Your task to perform on an android device: check google app version Image 0: 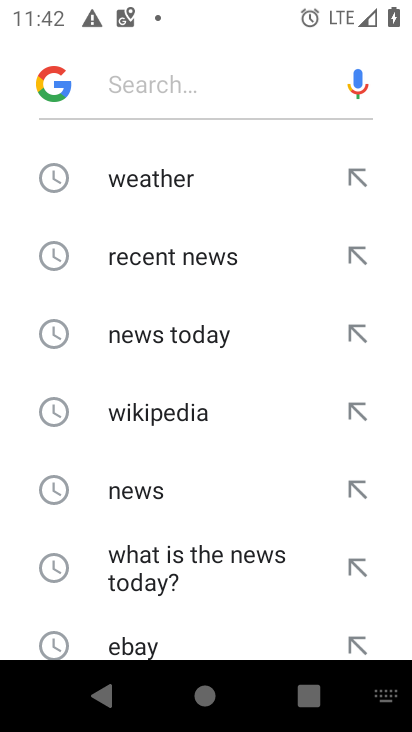
Step 0: press back button
Your task to perform on an android device: check google app version Image 1: 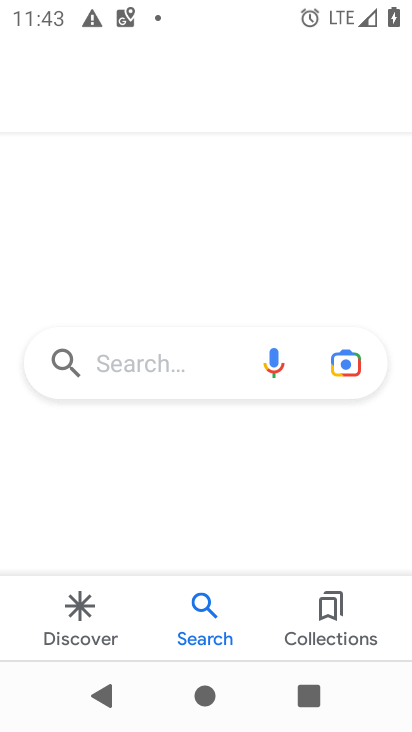
Step 1: press back button
Your task to perform on an android device: check google app version Image 2: 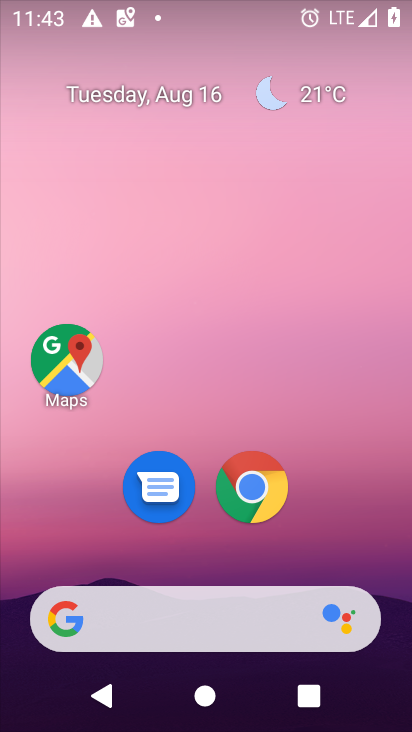
Step 2: drag from (204, 565) to (236, 0)
Your task to perform on an android device: check google app version Image 3: 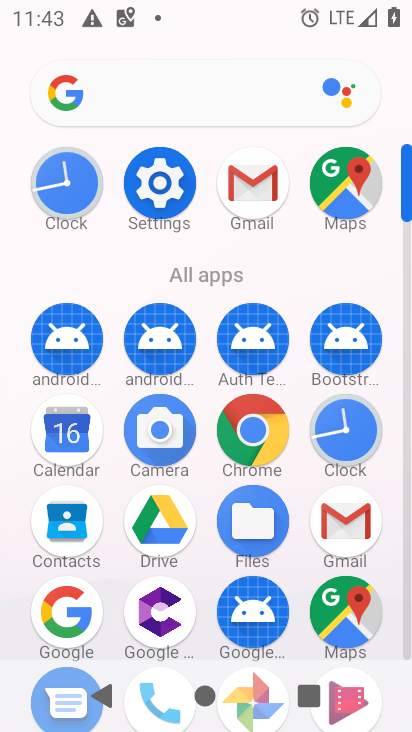
Step 3: click (76, 615)
Your task to perform on an android device: check google app version Image 4: 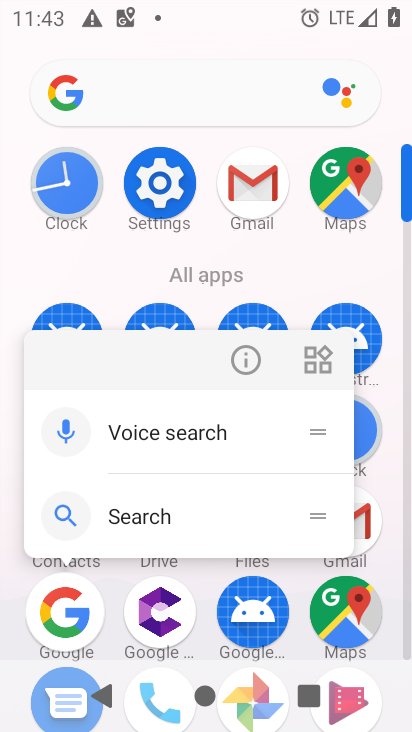
Step 4: click (238, 367)
Your task to perform on an android device: check google app version Image 5: 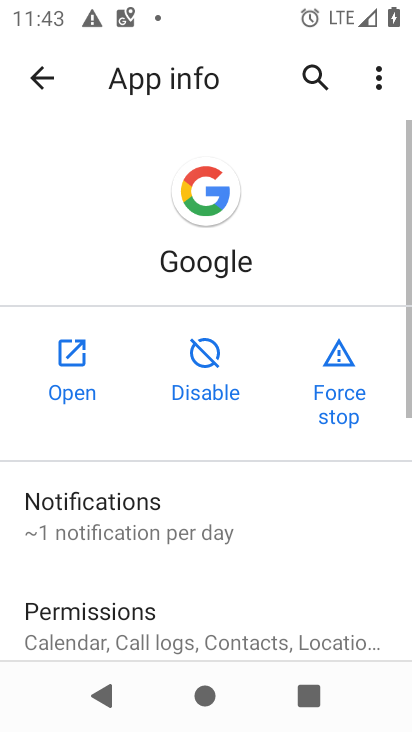
Step 5: drag from (294, 604) to (393, 10)
Your task to perform on an android device: check google app version Image 6: 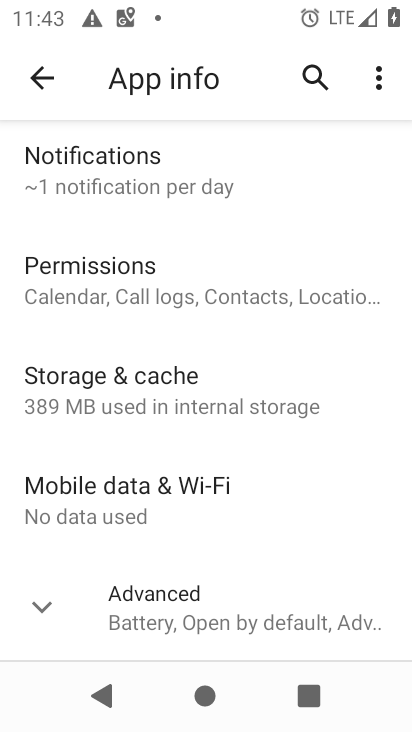
Step 6: click (204, 593)
Your task to perform on an android device: check google app version Image 7: 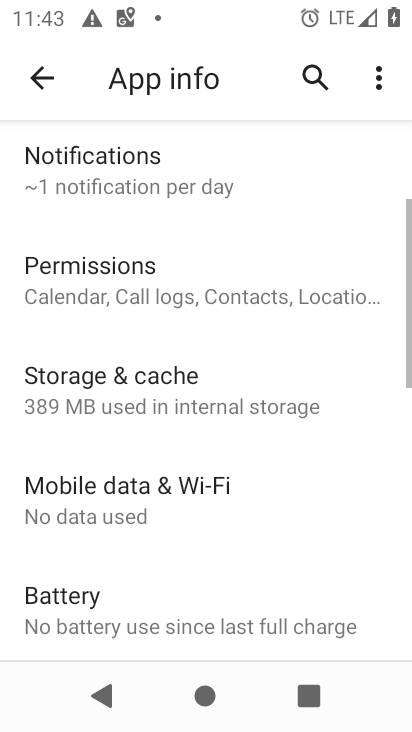
Step 7: task complete